Your task to perform on an android device: Do I have any events this weekend? Image 0: 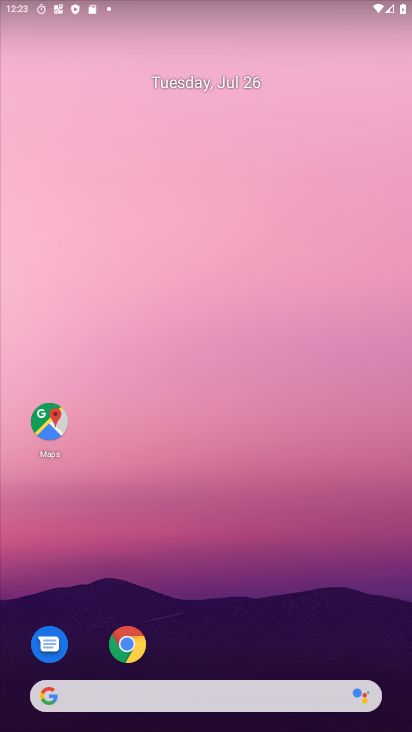
Step 0: drag from (264, 631) to (356, 3)
Your task to perform on an android device: Do I have any events this weekend? Image 1: 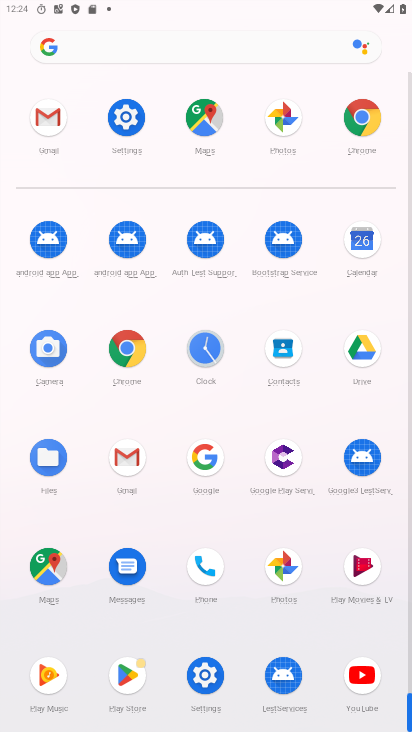
Step 1: click (373, 250)
Your task to perform on an android device: Do I have any events this weekend? Image 2: 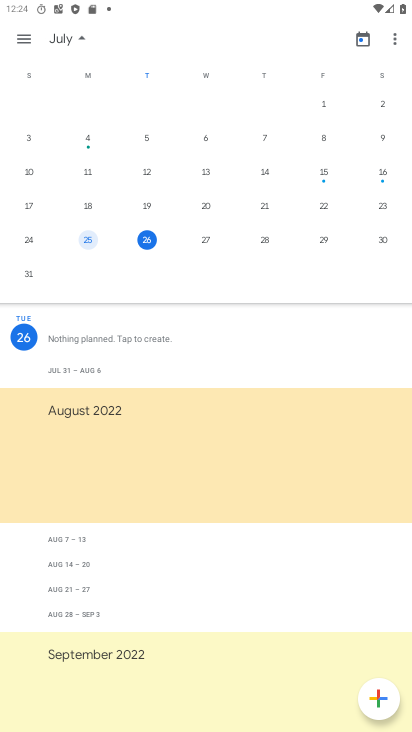
Step 2: task complete